Your task to perform on an android device: toggle show notifications on the lock screen Image 0: 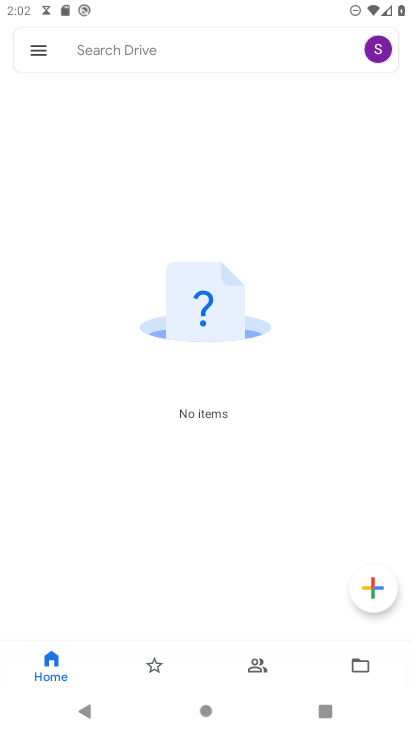
Step 0: press home button
Your task to perform on an android device: toggle show notifications on the lock screen Image 1: 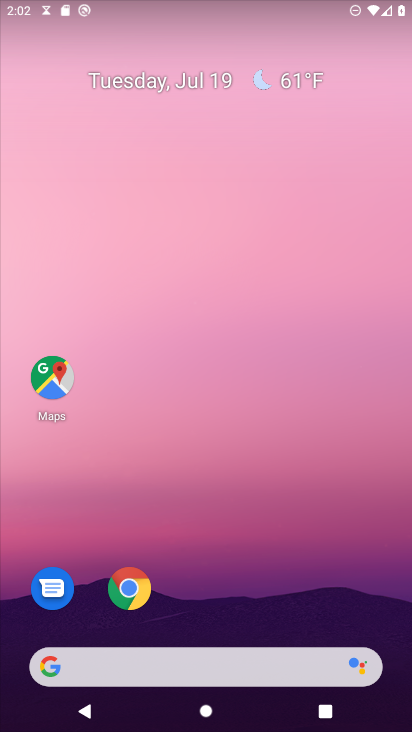
Step 1: drag from (287, 695) to (195, 218)
Your task to perform on an android device: toggle show notifications on the lock screen Image 2: 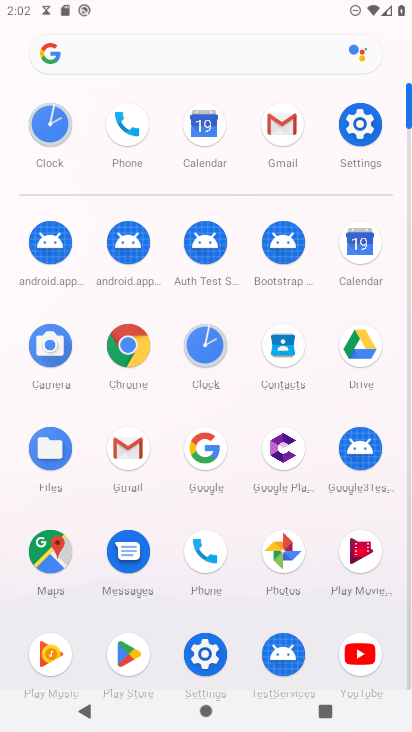
Step 2: click (363, 127)
Your task to perform on an android device: toggle show notifications on the lock screen Image 3: 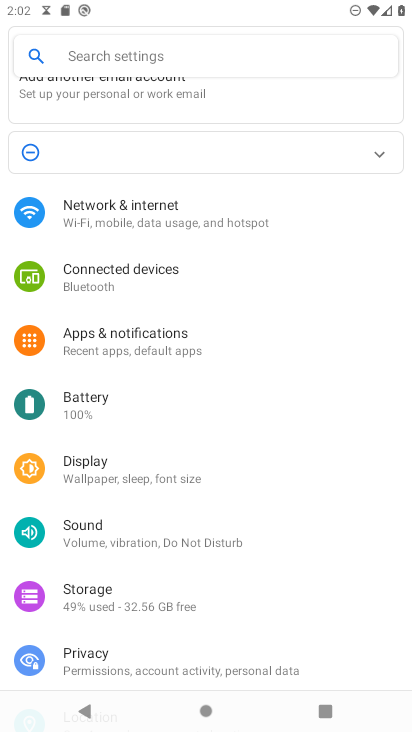
Step 3: click (95, 60)
Your task to perform on an android device: toggle show notifications on the lock screen Image 4: 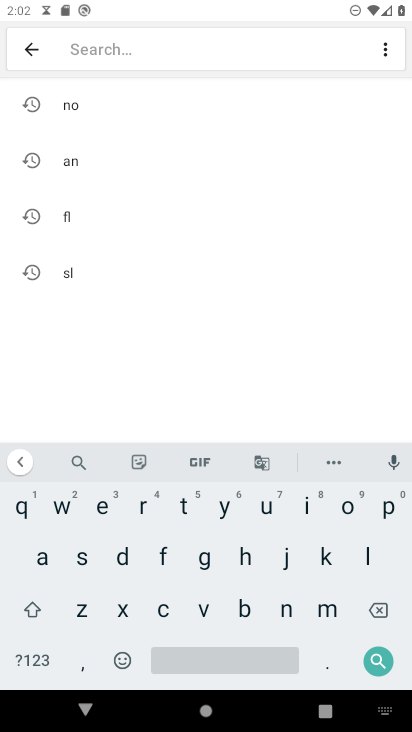
Step 4: click (94, 108)
Your task to perform on an android device: toggle show notifications on the lock screen Image 5: 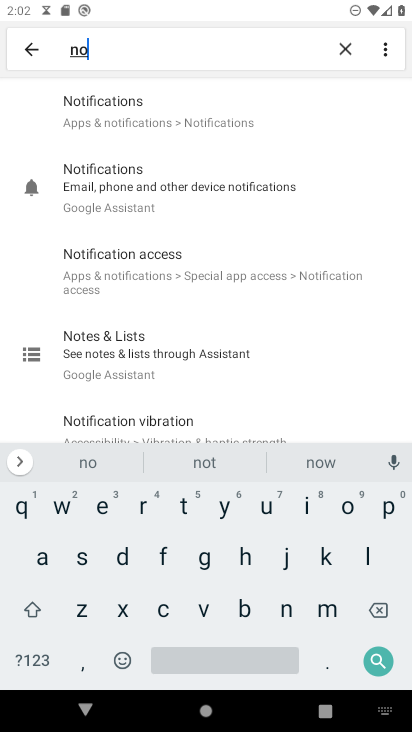
Step 5: click (92, 110)
Your task to perform on an android device: toggle show notifications on the lock screen Image 6: 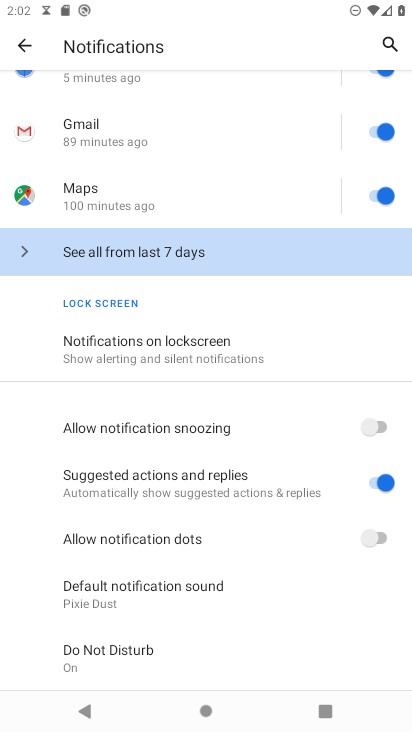
Step 6: click (130, 349)
Your task to perform on an android device: toggle show notifications on the lock screen Image 7: 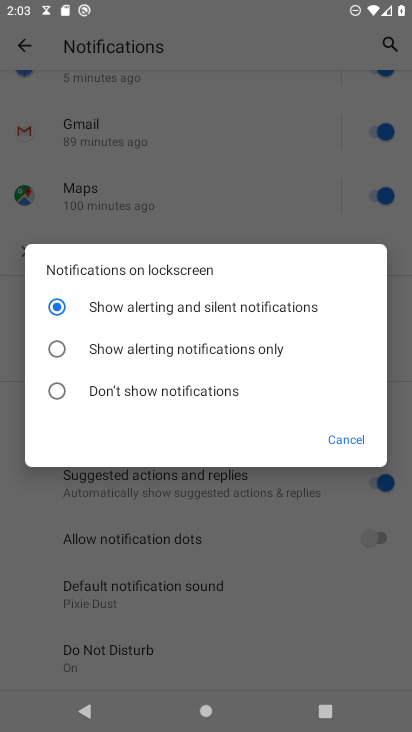
Step 7: task complete